Your task to perform on an android device: Open battery settings Image 0: 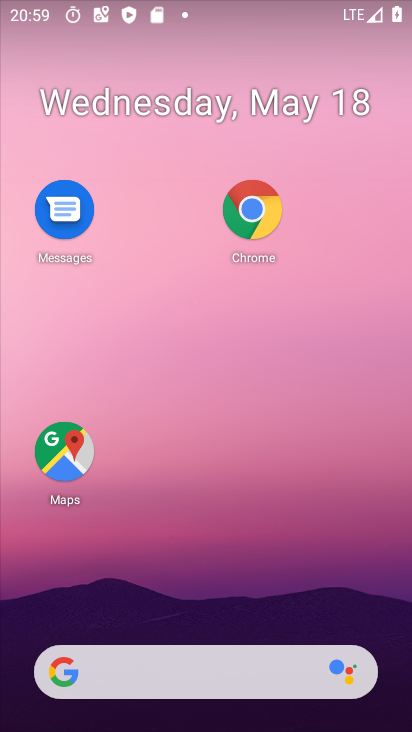
Step 0: drag from (240, 608) to (222, 332)
Your task to perform on an android device: Open battery settings Image 1: 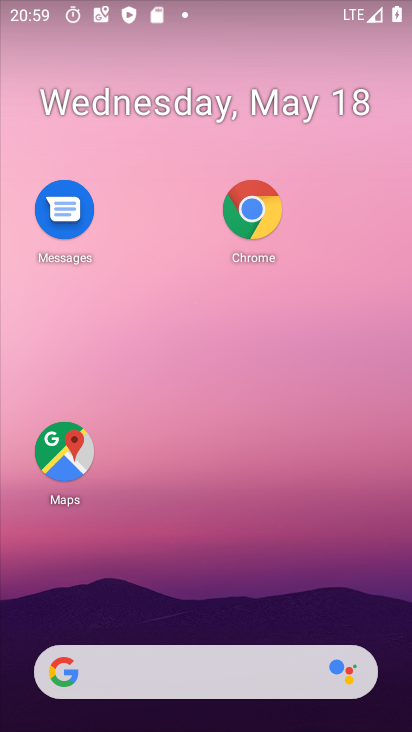
Step 1: drag from (175, 619) to (200, 10)
Your task to perform on an android device: Open battery settings Image 2: 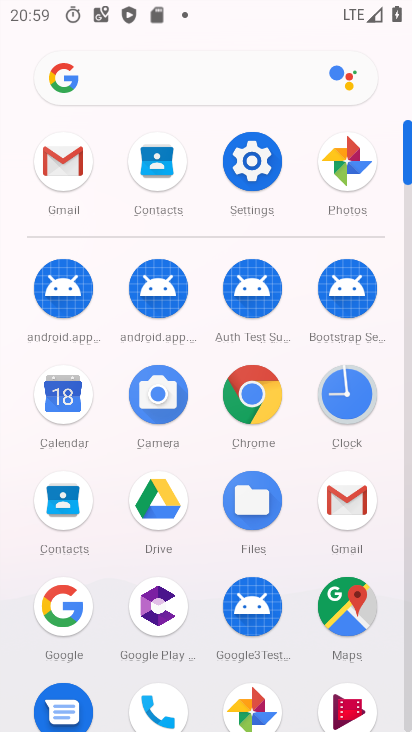
Step 2: click (255, 144)
Your task to perform on an android device: Open battery settings Image 3: 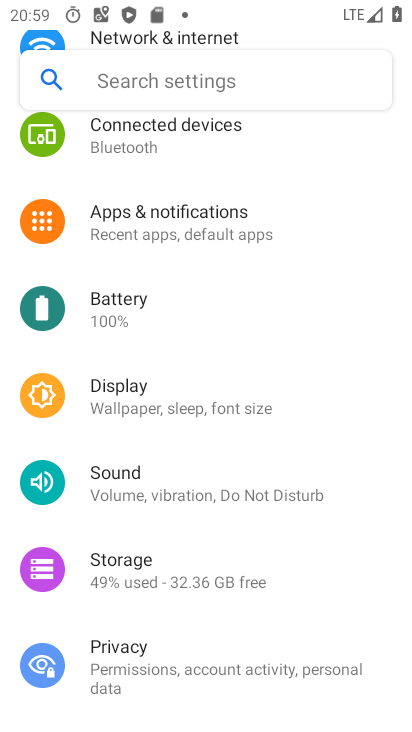
Step 3: click (169, 307)
Your task to perform on an android device: Open battery settings Image 4: 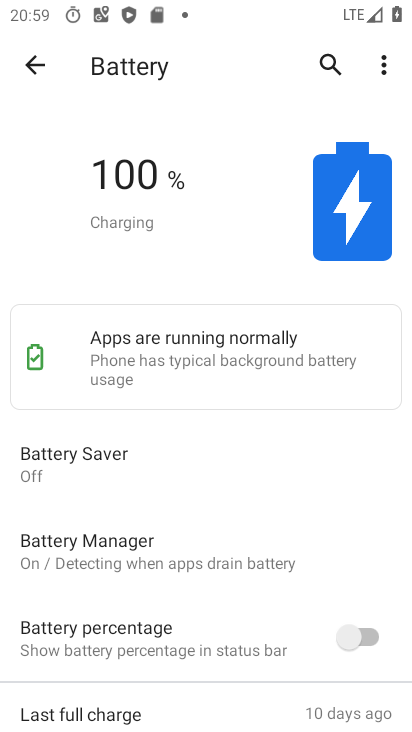
Step 4: task complete